Your task to perform on an android device: star an email in the gmail app Image 0: 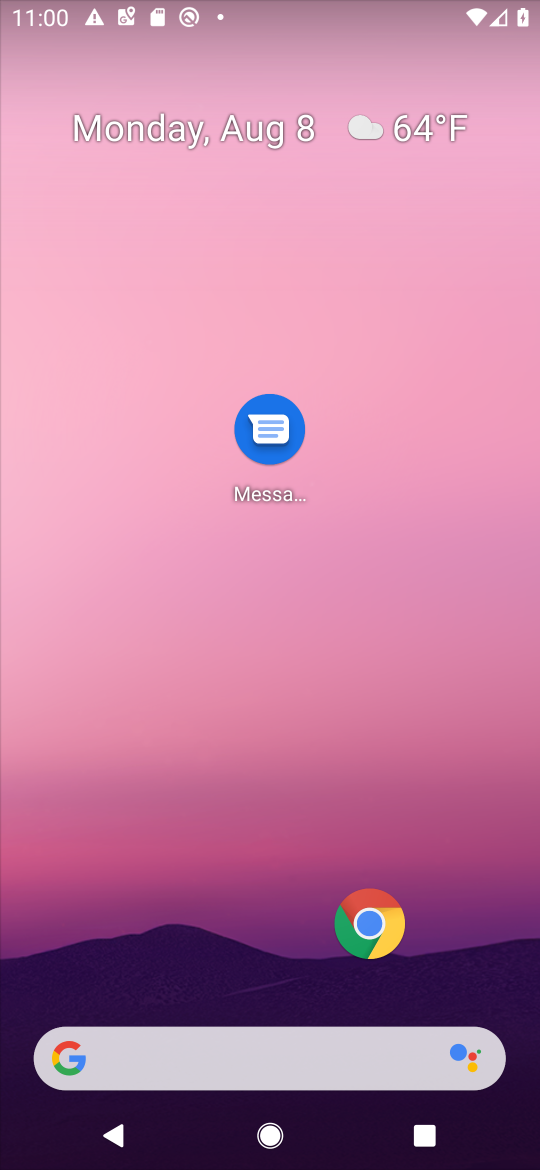
Step 0: drag from (37, 1092) to (397, 241)
Your task to perform on an android device: star an email in the gmail app Image 1: 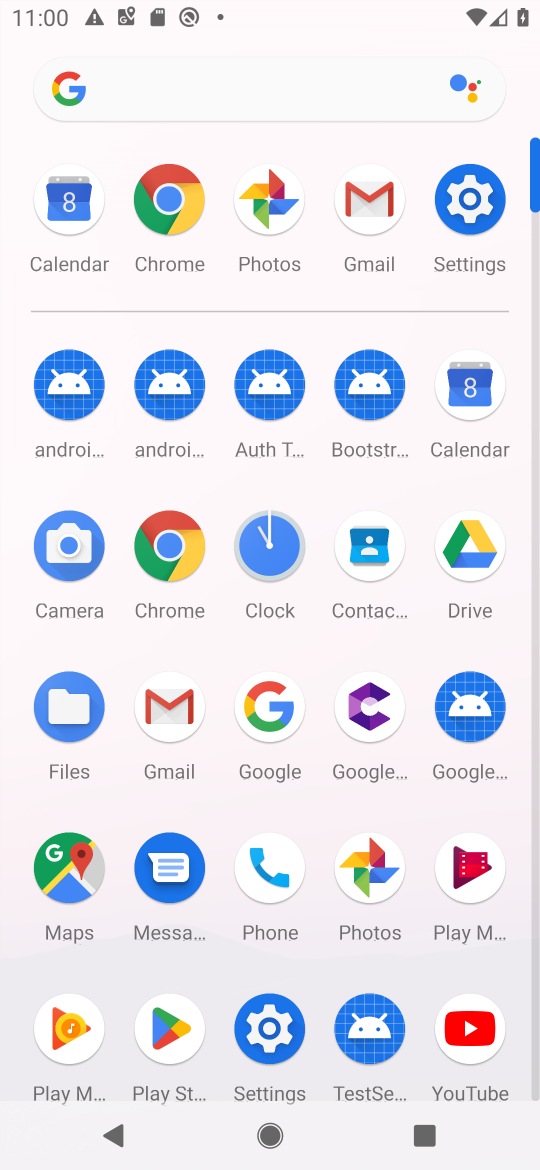
Step 1: click (176, 718)
Your task to perform on an android device: star an email in the gmail app Image 2: 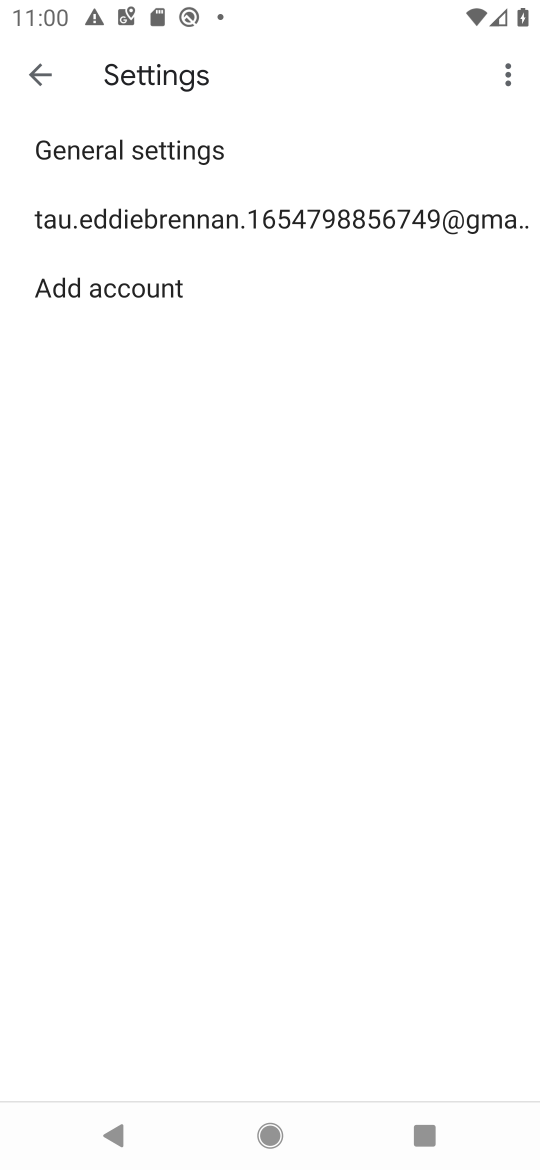
Step 2: click (29, 77)
Your task to perform on an android device: star an email in the gmail app Image 3: 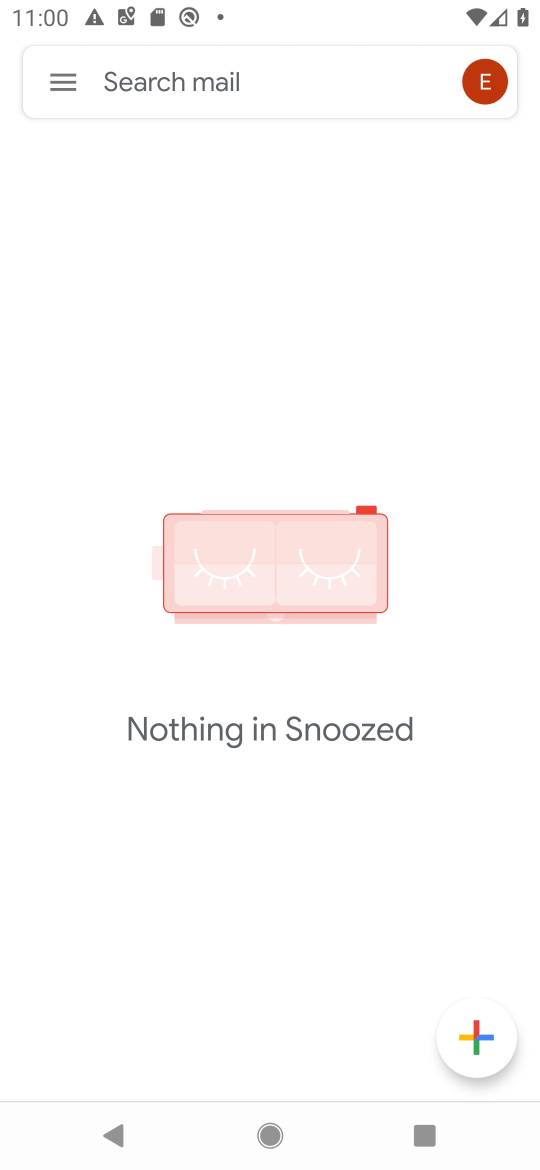
Step 3: click (55, 74)
Your task to perform on an android device: star an email in the gmail app Image 4: 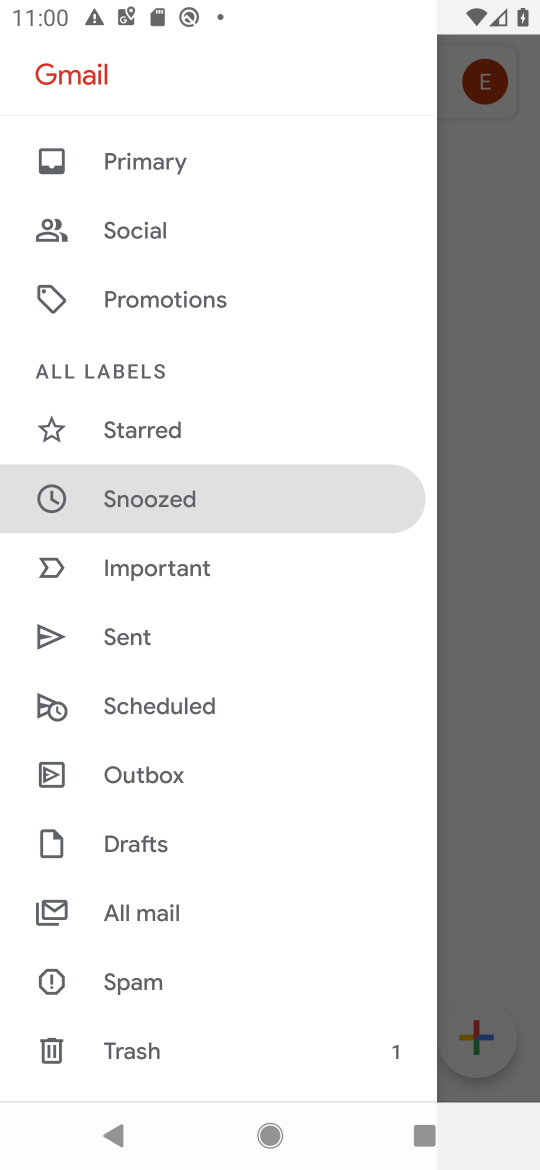
Step 4: click (122, 439)
Your task to perform on an android device: star an email in the gmail app Image 5: 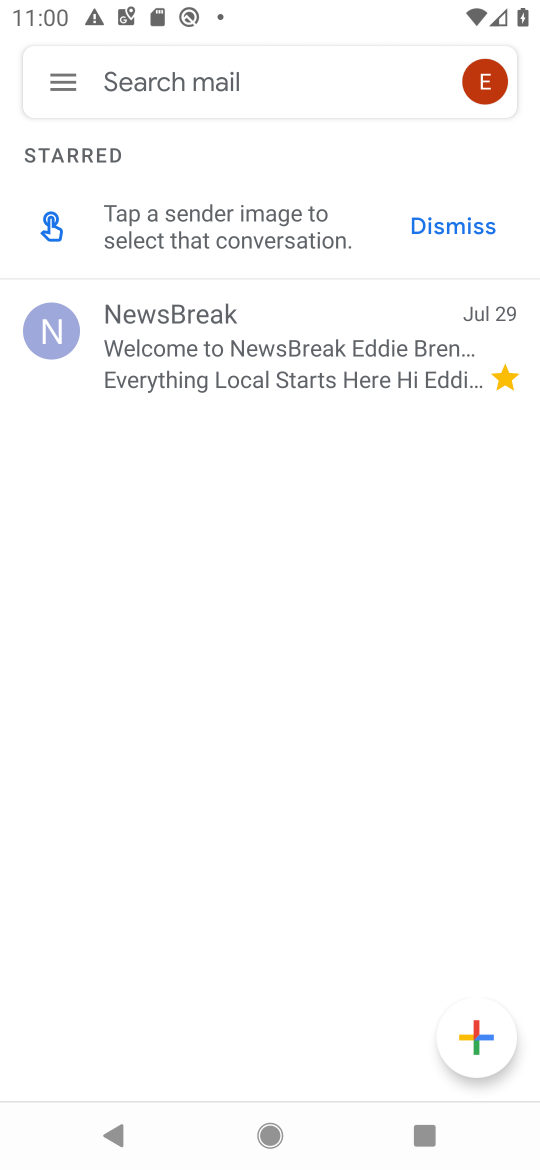
Step 5: task complete